Your task to perform on an android device: snooze an email in the gmail app Image 0: 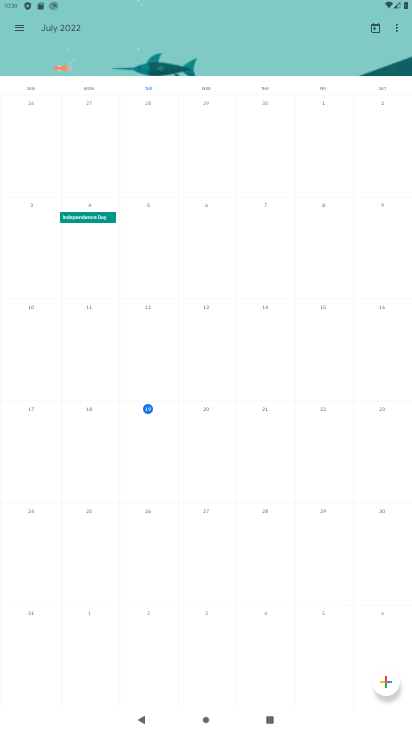
Step 0: press home button
Your task to perform on an android device: snooze an email in the gmail app Image 1: 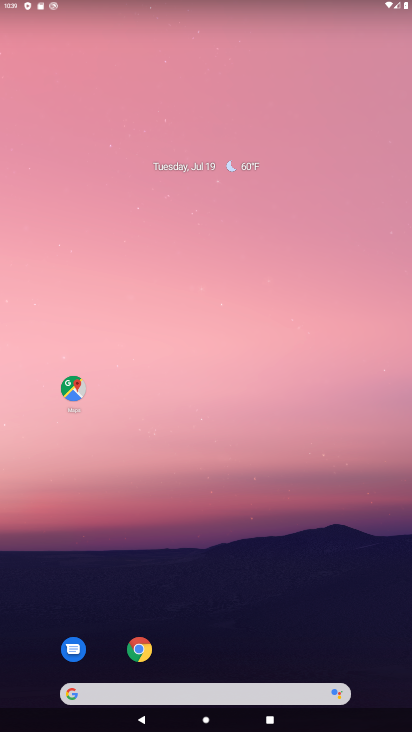
Step 1: drag from (285, 656) to (281, 189)
Your task to perform on an android device: snooze an email in the gmail app Image 2: 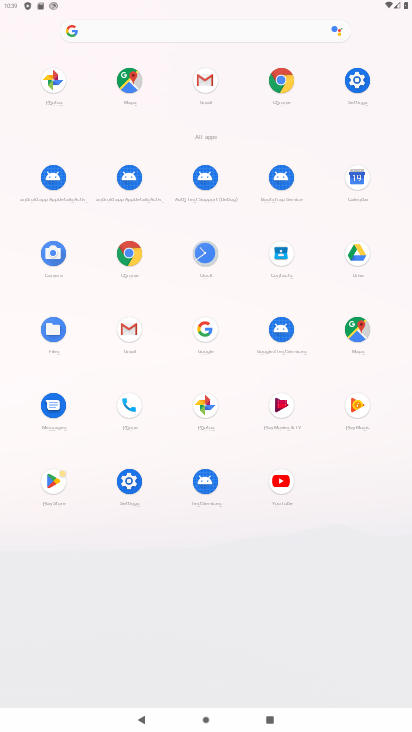
Step 2: click (132, 331)
Your task to perform on an android device: snooze an email in the gmail app Image 3: 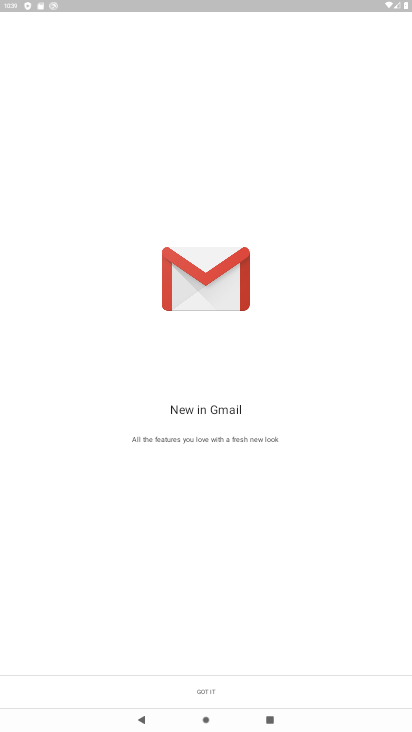
Step 3: click (225, 690)
Your task to perform on an android device: snooze an email in the gmail app Image 4: 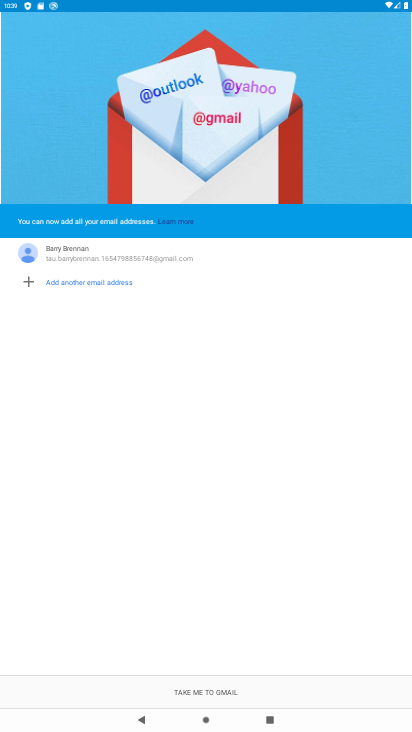
Step 4: click (242, 696)
Your task to perform on an android device: snooze an email in the gmail app Image 5: 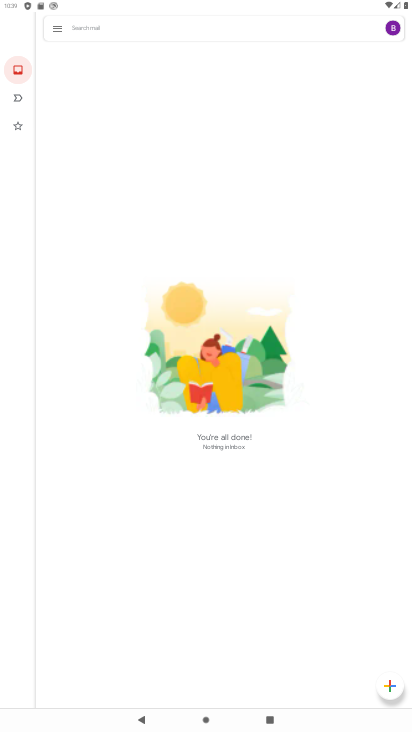
Step 5: click (61, 29)
Your task to perform on an android device: snooze an email in the gmail app Image 6: 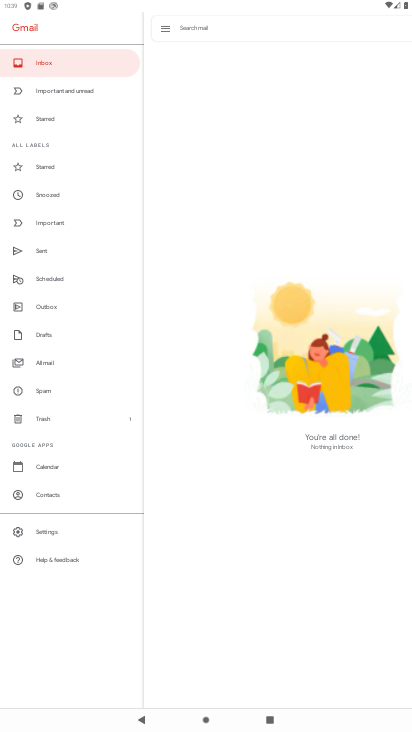
Step 6: click (67, 361)
Your task to perform on an android device: snooze an email in the gmail app Image 7: 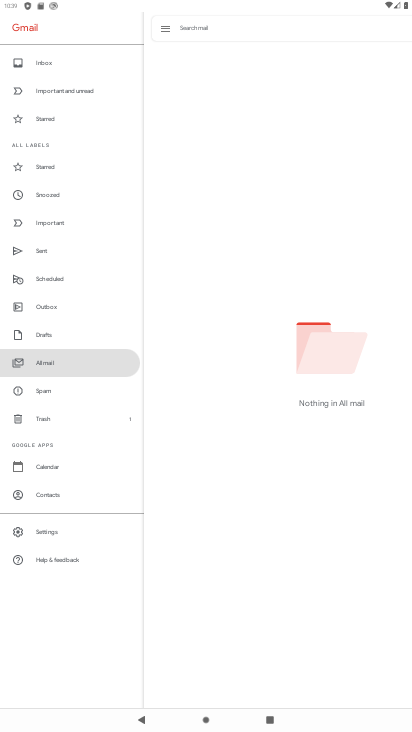
Step 7: task complete